Your task to perform on an android device: Do I have any events this weekend? Image 0: 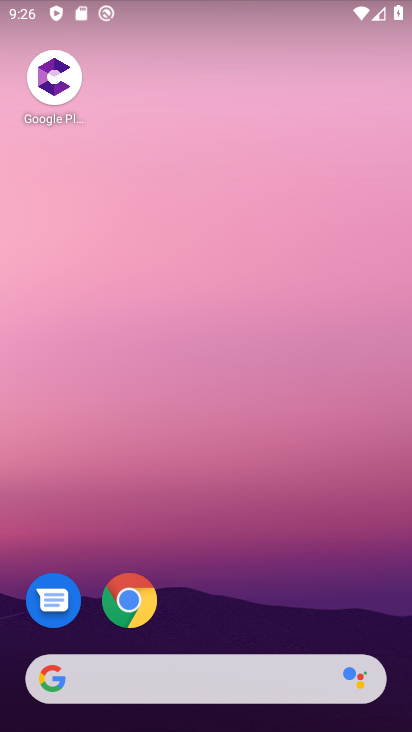
Step 0: drag from (208, 544) to (303, 31)
Your task to perform on an android device: Do I have any events this weekend? Image 1: 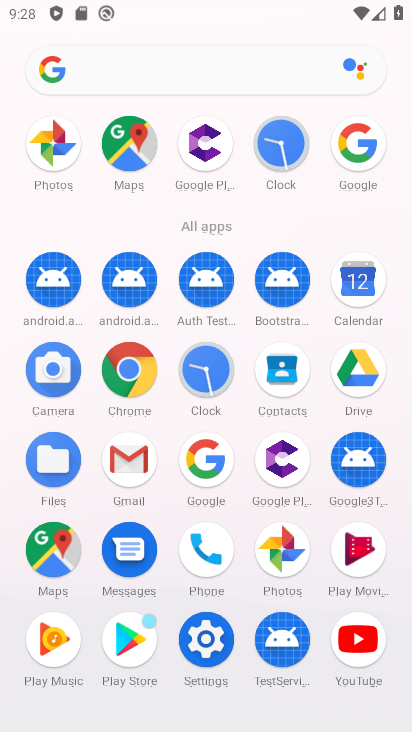
Step 1: click (353, 277)
Your task to perform on an android device: Do I have any events this weekend? Image 2: 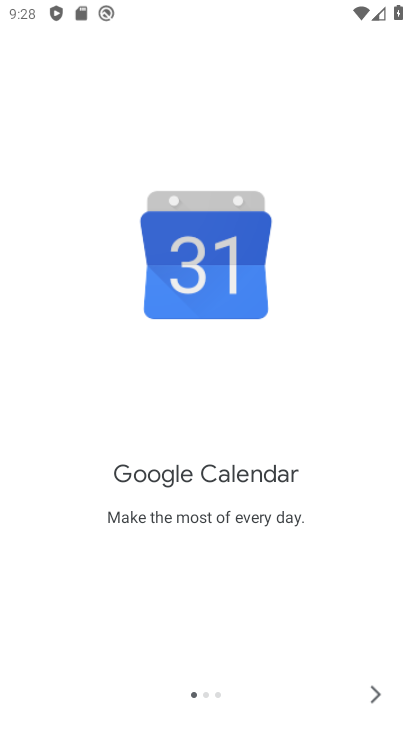
Step 2: click (369, 676)
Your task to perform on an android device: Do I have any events this weekend? Image 3: 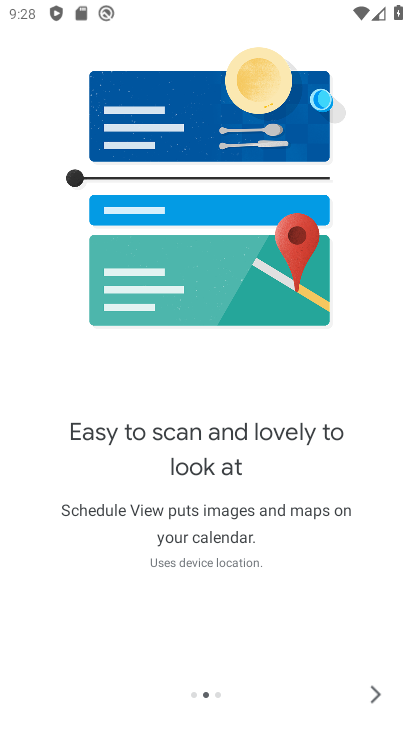
Step 3: click (381, 695)
Your task to perform on an android device: Do I have any events this weekend? Image 4: 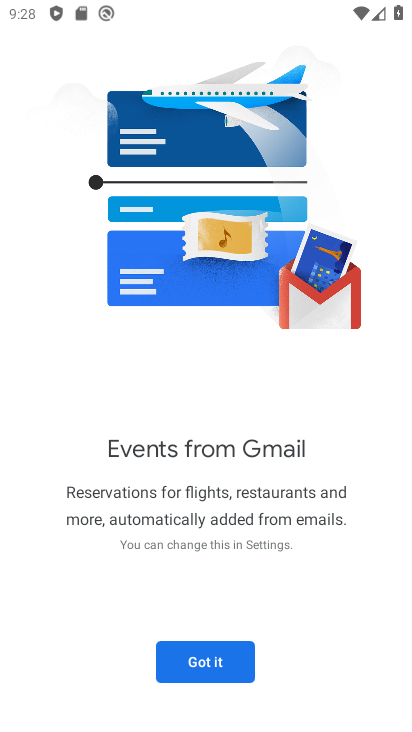
Step 4: click (188, 666)
Your task to perform on an android device: Do I have any events this weekend? Image 5: 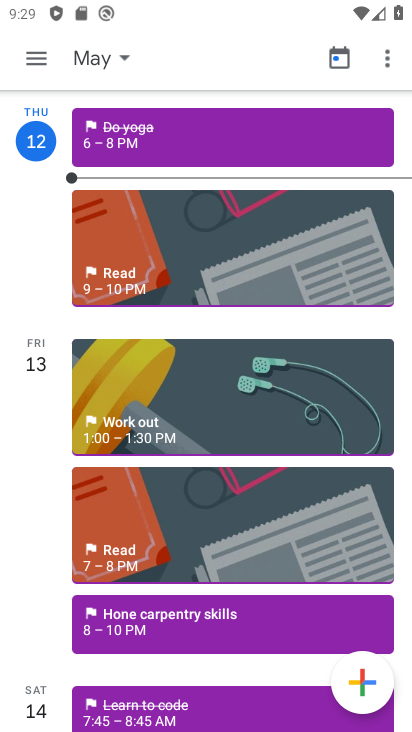
Step 5: drag from (193, 615) to (282, 84)
Your task to perform on an android device: Do I have any events this weekend? Image 6: 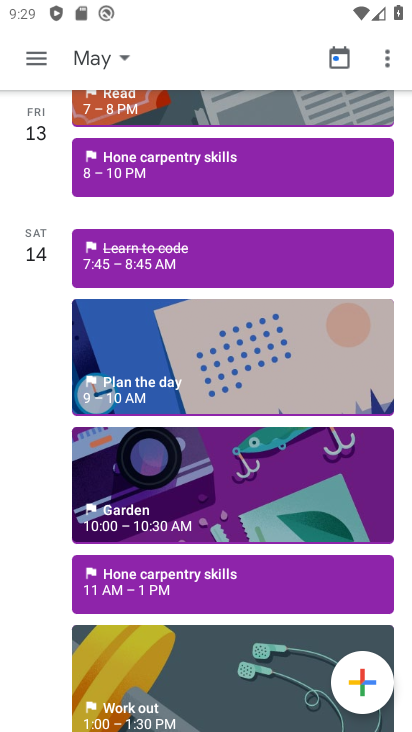
Step 6: drag from (231, 565) to (276, 148)
Your task to perform on an android device: Do I have any events this weekend? Image 7: 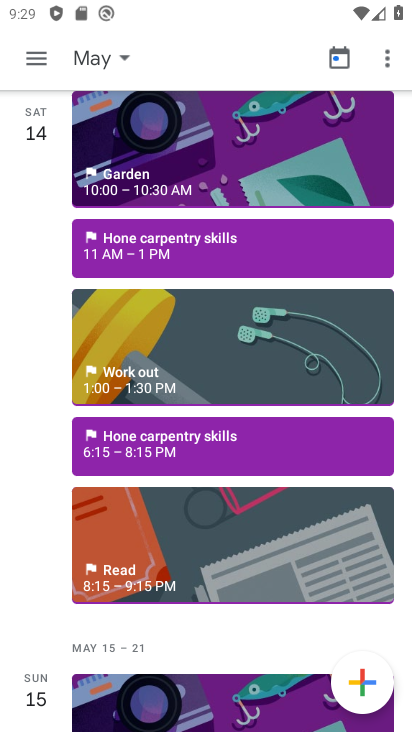
Step 7: drag from (179, 657) to (221, 250)
Your task to perform on an android device: Do I have any events this weekend? Image 8: 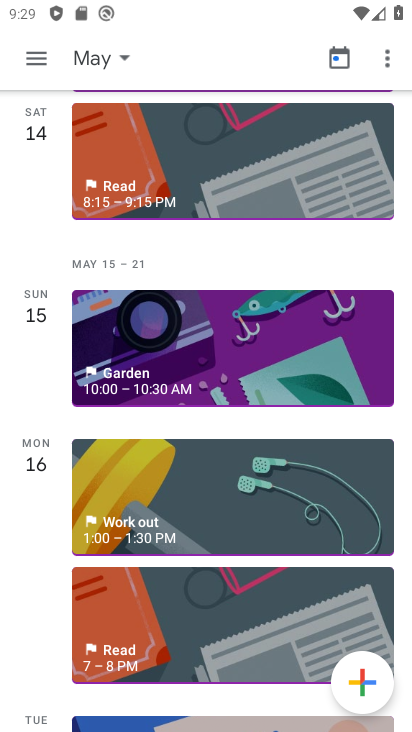
Step 8: click (155, 348)
Your task to perform on an android device: Do I have any events this weekend? Image 9: 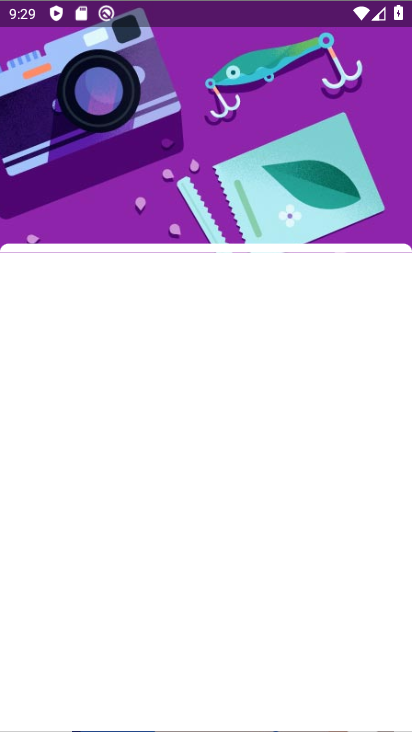
Step 9: task complete